Your task to perform on an android device: Do I have any events today? Image 0: 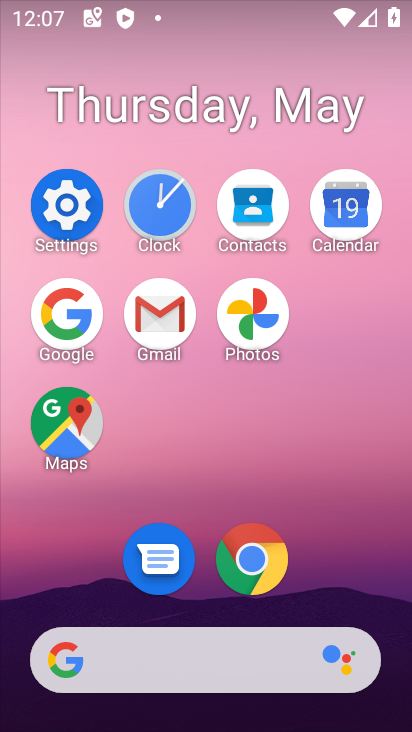
Step 0: click (335, 213)
Your task to perform on an android device: Do I have any events today? Image 1: 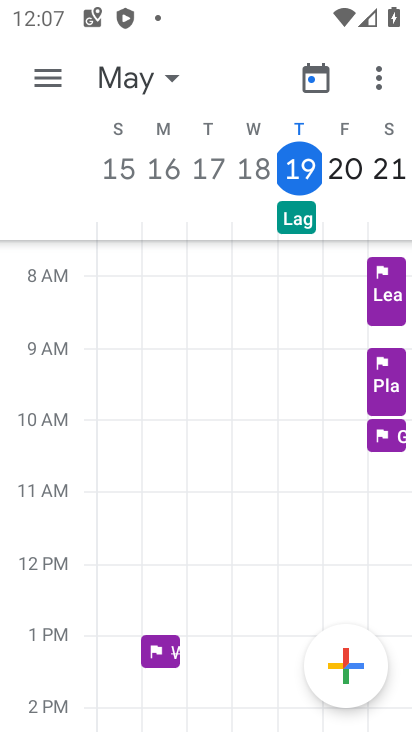
Step 1: click (312, 160)
Your task to perform on an android device: Do I have any events today? Image 2: 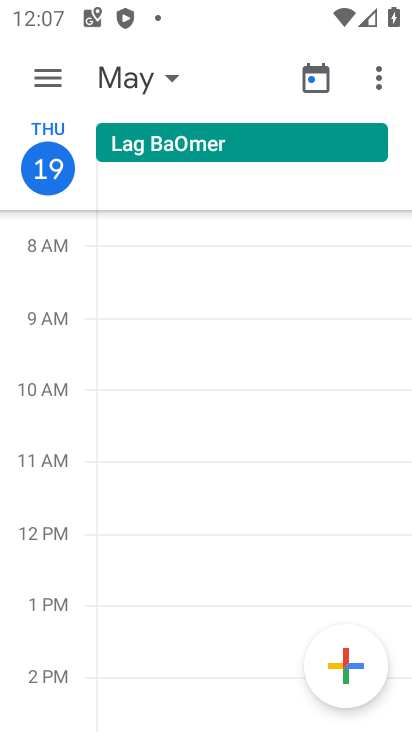
Step 2: task complete